Your task to perform on an android device: Go to ESPN.com Image 0: 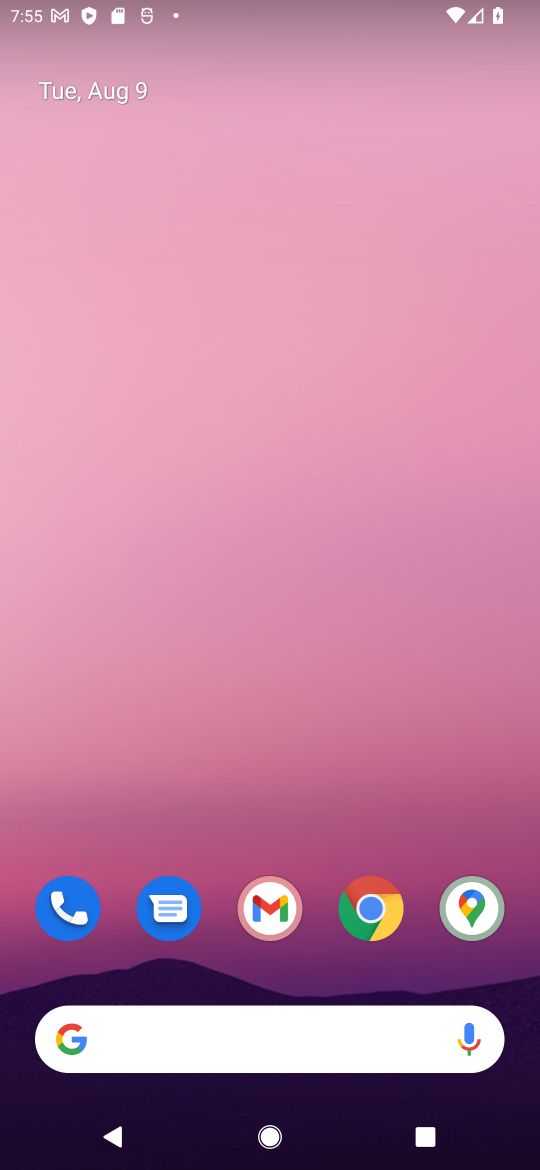
Step 0: click (373, 906)
Your task to perform on an android device: Go to ESPN.com Image 1: 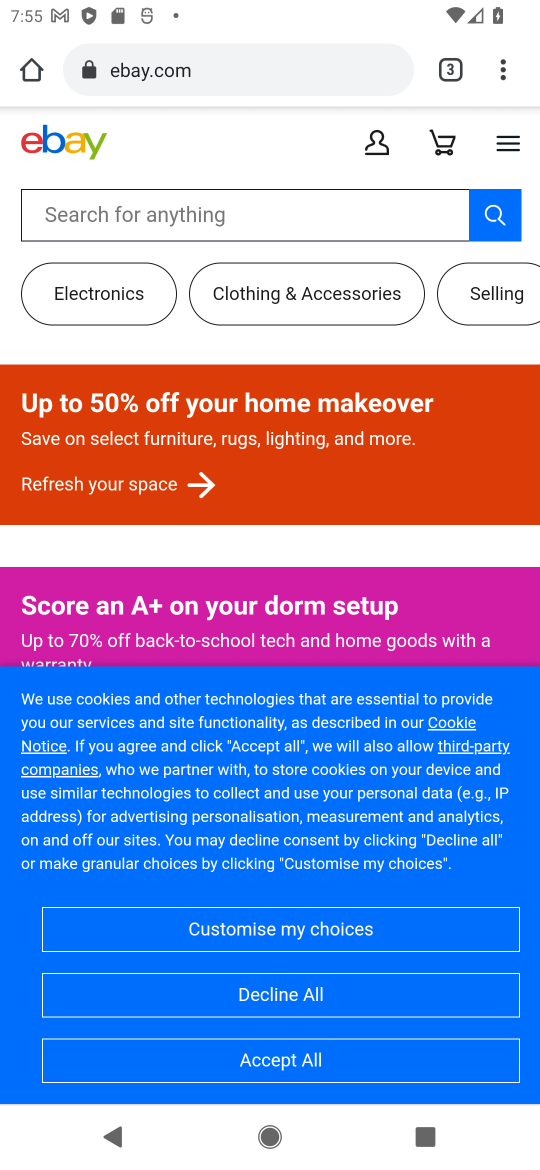
Step 1: click (499, 72)
Your task to perform on an android device: Go to ESPN.com Image 2: 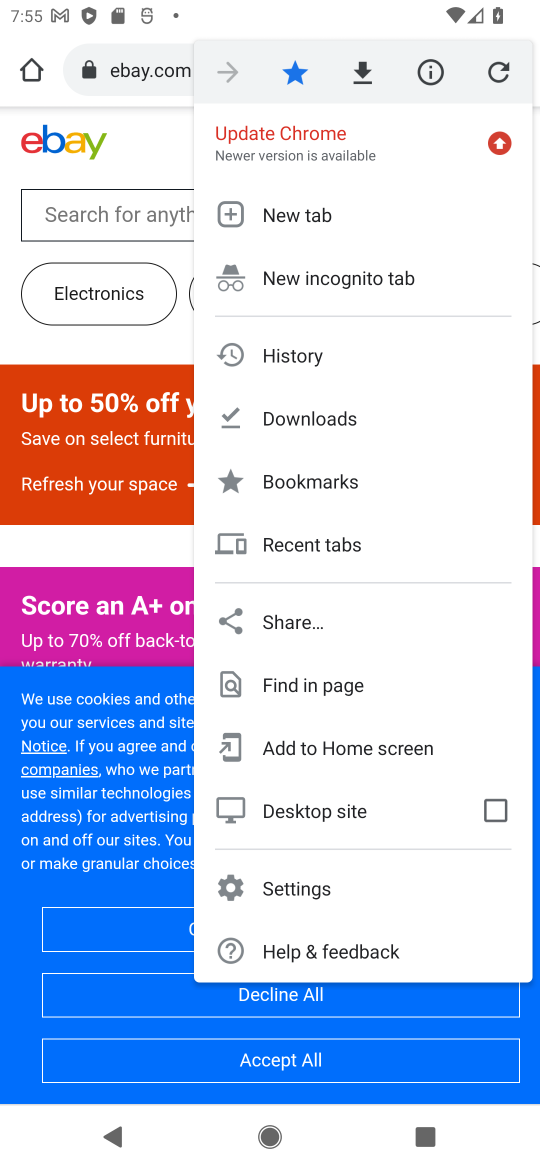
Step 2: click (278, 210)
Your task to perform on an android device: Go to ESPN.com Image 3: 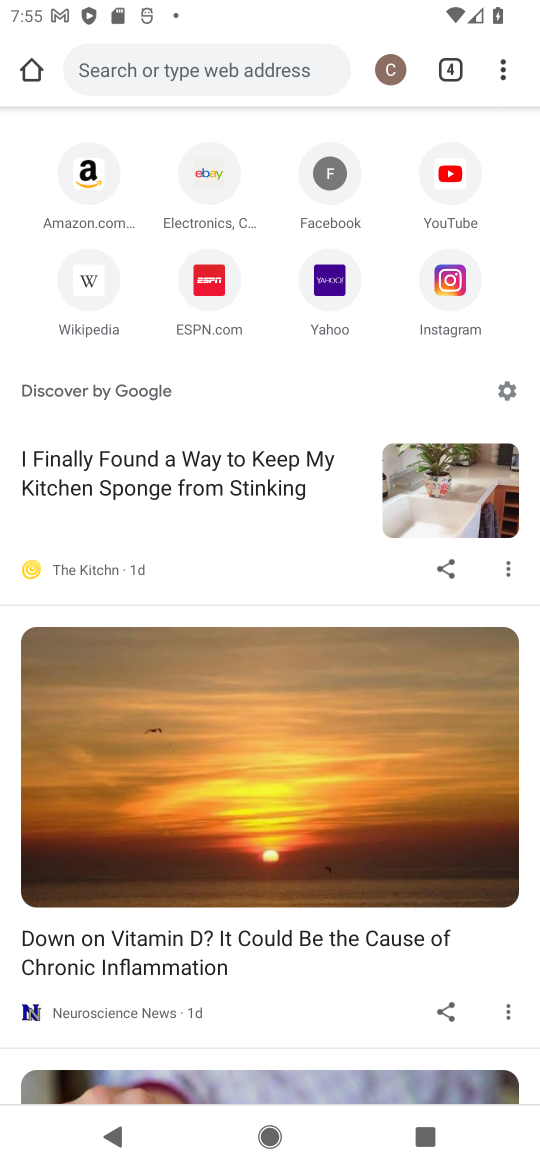
Step 3: click (209, 272)
Your task to perform on an android device: Go to ESPN.com Image 4: 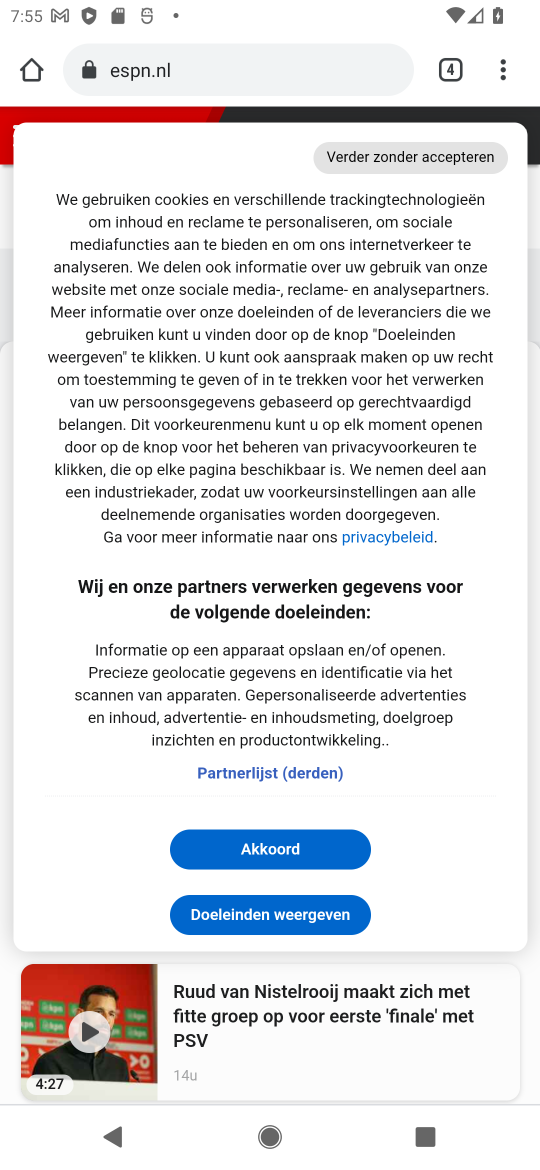
Step 4: task complete